Your task to perform on an android device: turn off wifi Image 0: 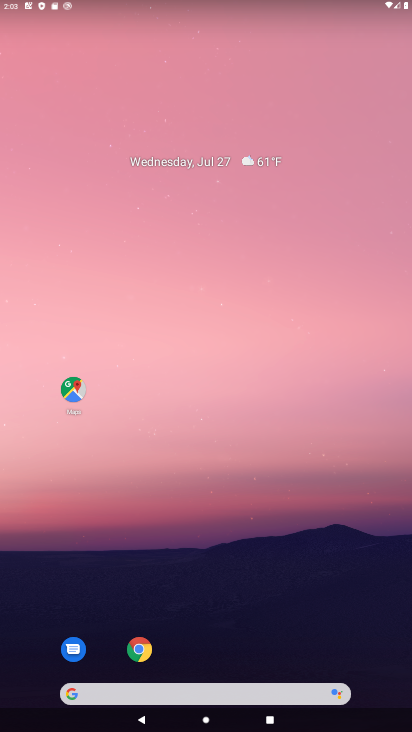
Step 0: press home button
Your task to perform on an android device: turn off wifi Image 1: 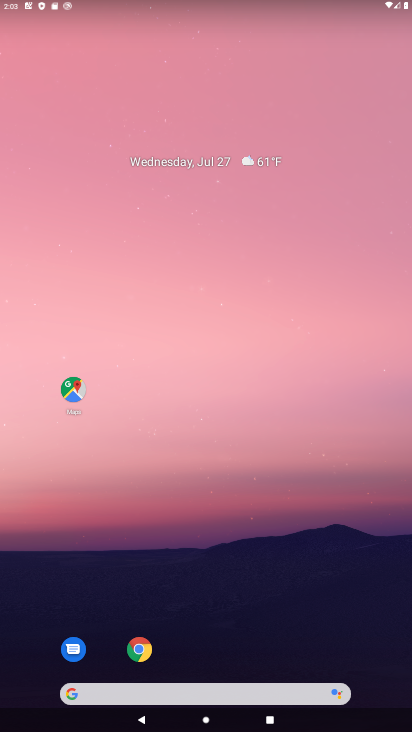
Step 1: drag from (199, 607) to (198, 339)
Your task to perform on an android device: turn off wifi Image 2: 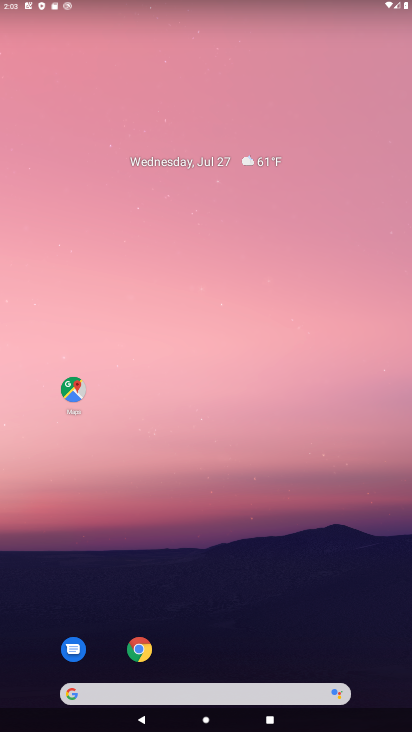
Step 2: drag from (180, 506) to (170, 177)
Your task to perform on an android device: turn off wifi Image 3: 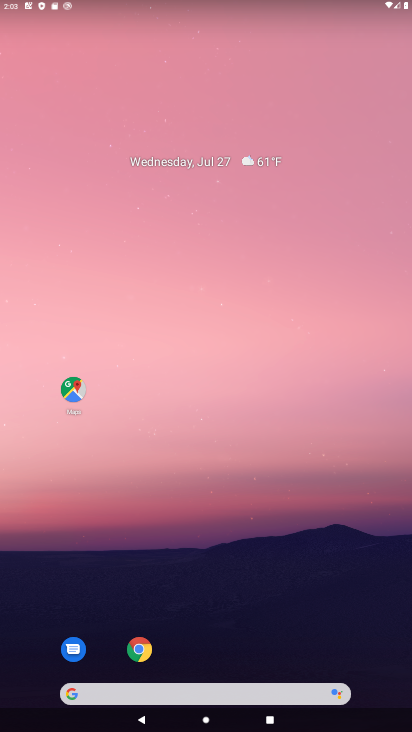
Step 3: drag from (170, 391) to (171, 273)
Your task to perform on an android device: turn off wifi Image 4: 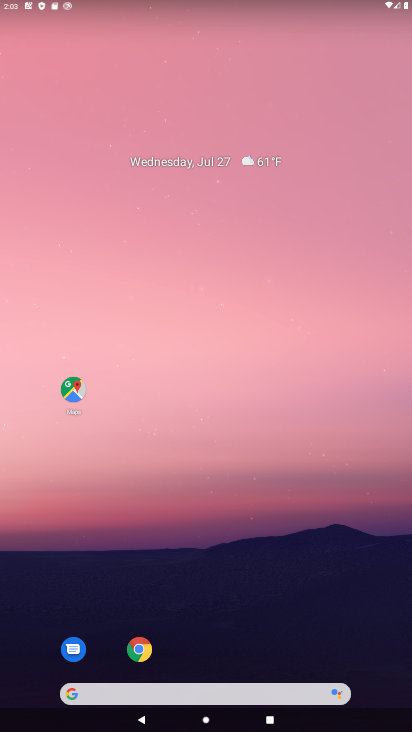
Step 4: drag from (201, 593) to (154, 21)
Your task to perform on an android device: turn off wifi Image 5: 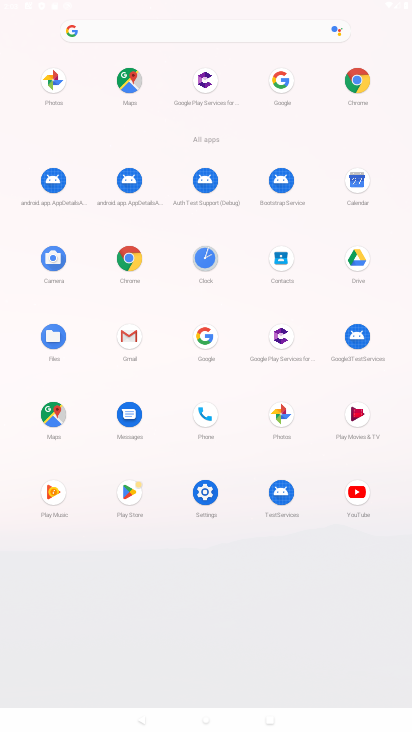
Step 5: click (211, 502)
Your task to perform on an android device: turn off wifi Image 6: 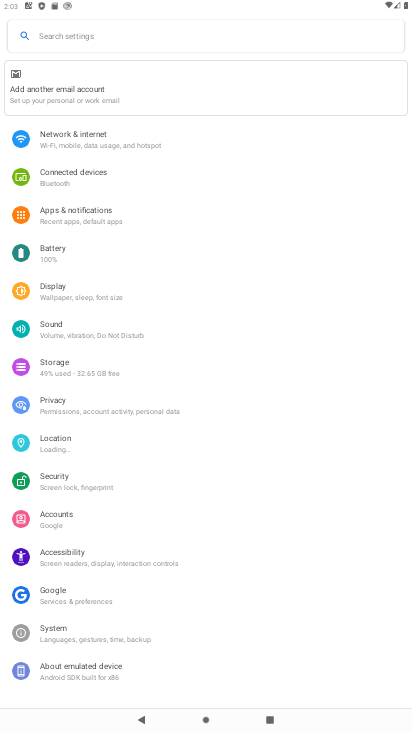
Step 6: click (61, 138)
Your task to perform on an android device: turn off wifi Image 7: 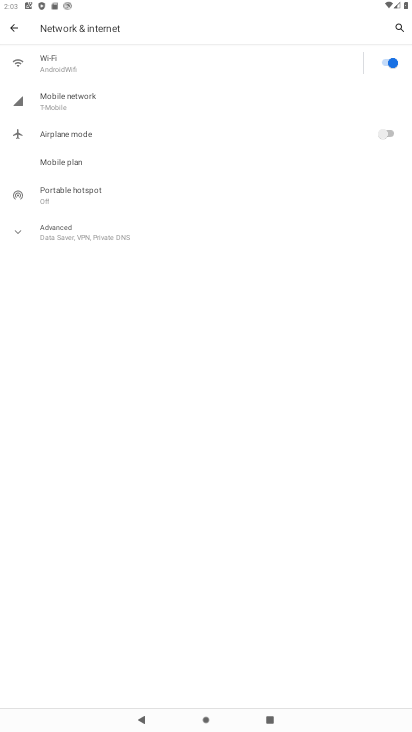
Step 7: click (384, 62)
Your task to perform on an android device: turn off wifi Image 8: 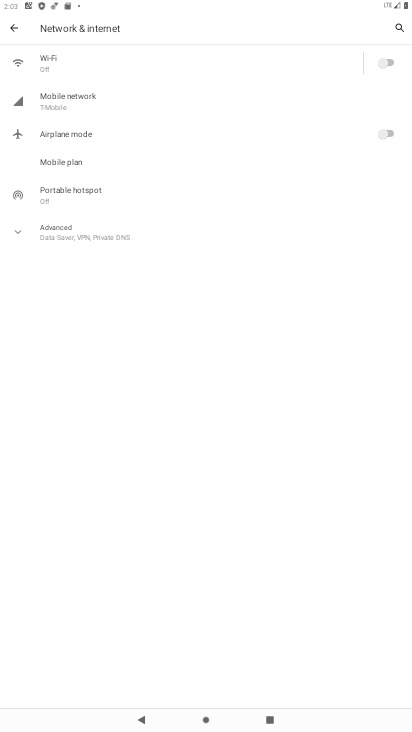
Step 8: task complete